Your task to perform on an android device: change the clock display to show seconds Image 0: 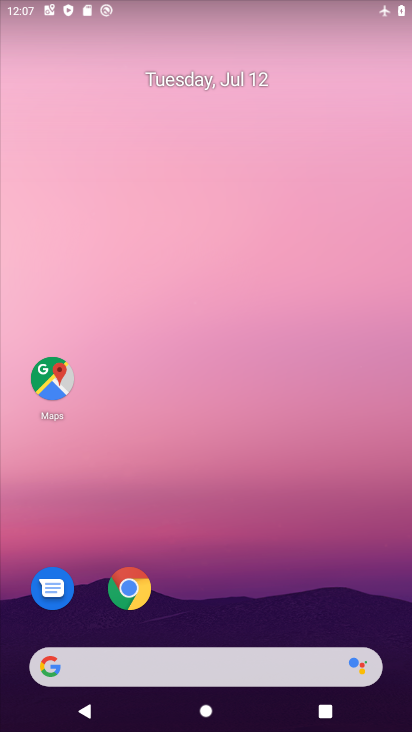
Step 0: drag from (333, 586) to (267, 176)
Your task to perform on an android device: change the clock display to show seconds Image 1: 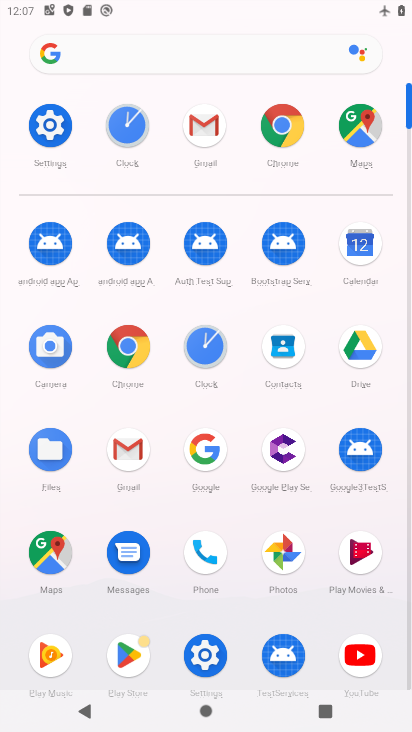
Step 1: click (203, 348)
Your task to perform on an android device: change the clock display to show seconds Image 2: 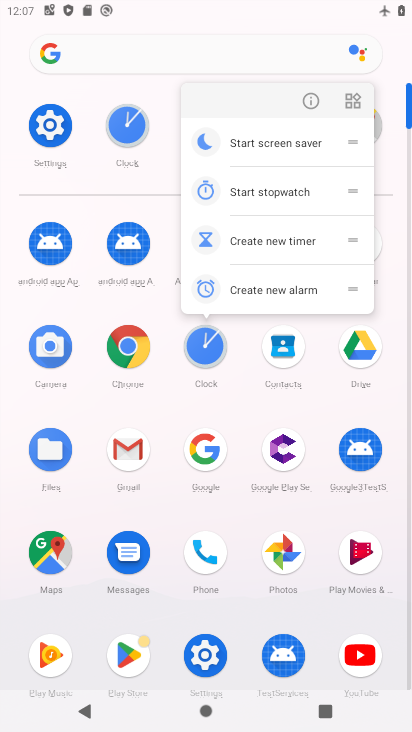
Step 2: click (199, 343)
Your task to perform on an android device: change the clock display to show seconds Image 3: 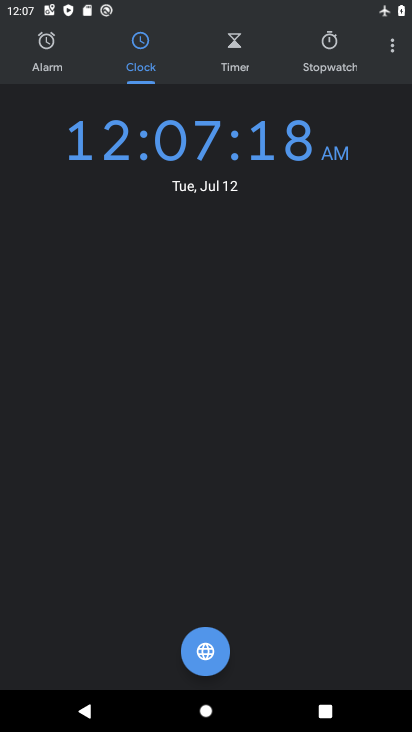
Step 3: click (390, 51)
Your task to perform on an android device: change the clock display to show seconds Image 4: 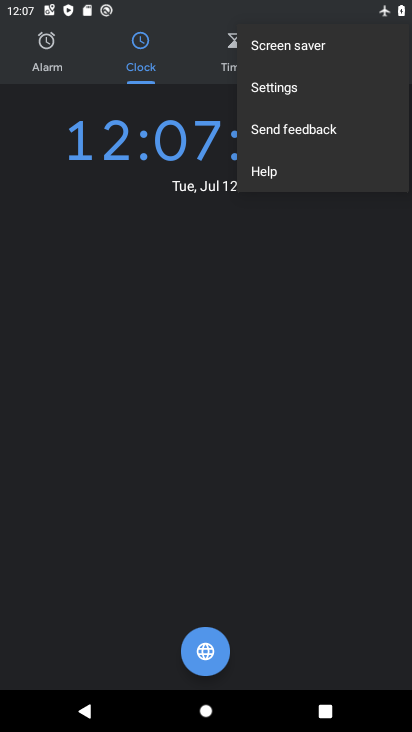
Step 4: click (272, 93)
Your task to perform on an android device: change the clock display to show seconds Image 5: 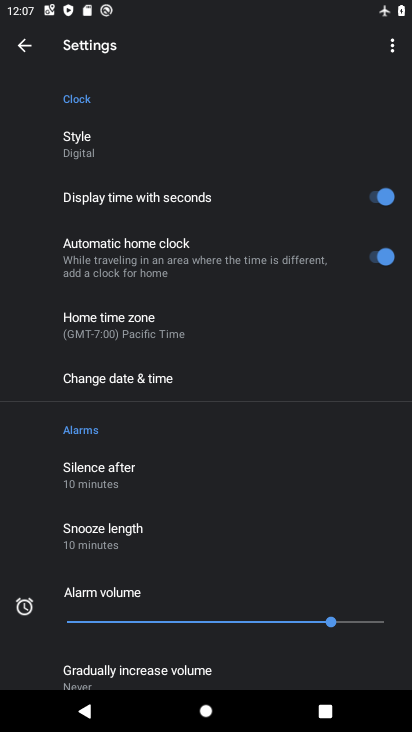
Step 5: task complete